Your task to perform on an android device: Go to Amazon Image 0: 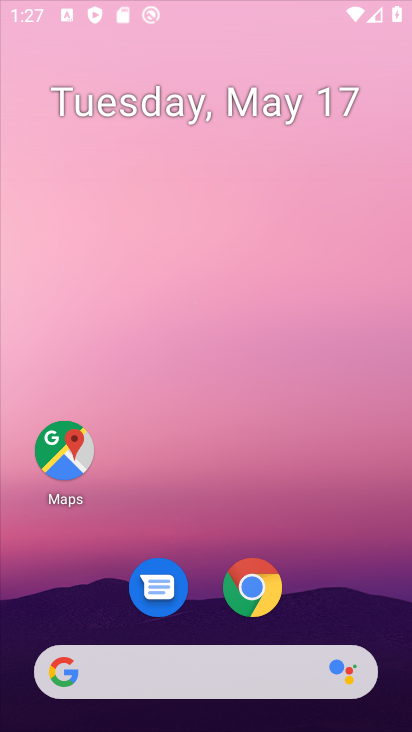
Step 0: click (220, 54)
Your task to perform on an android device: Go to Amazon Image 1: 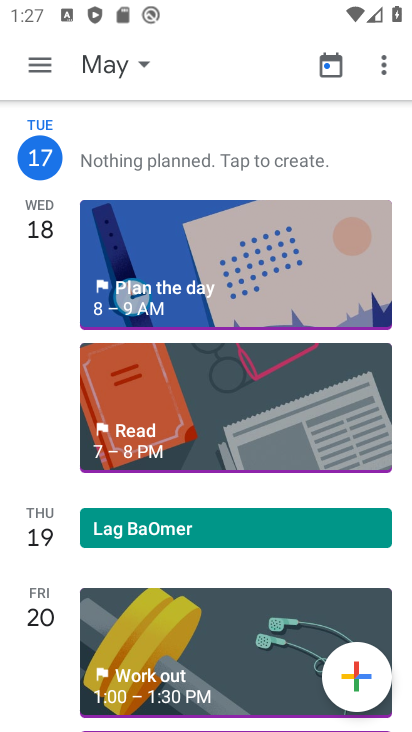
Step 1: drag from (233, 568) to (255, 28)
Your task to perform on an android device: Go to Amazon Image 2: 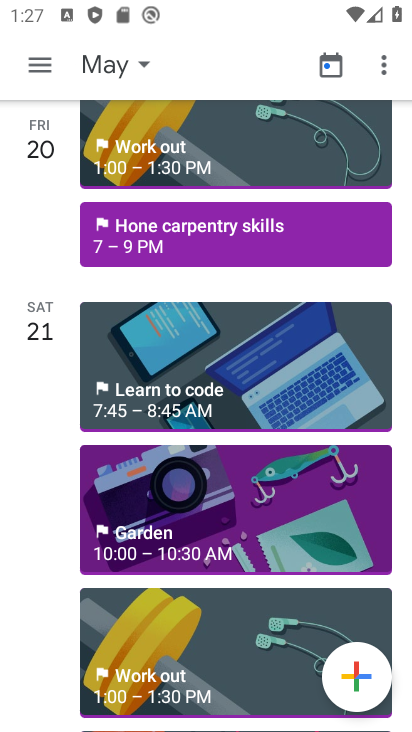
Step 2: press home button
Your task to perform on an android device: Go to Amazon Image 3: 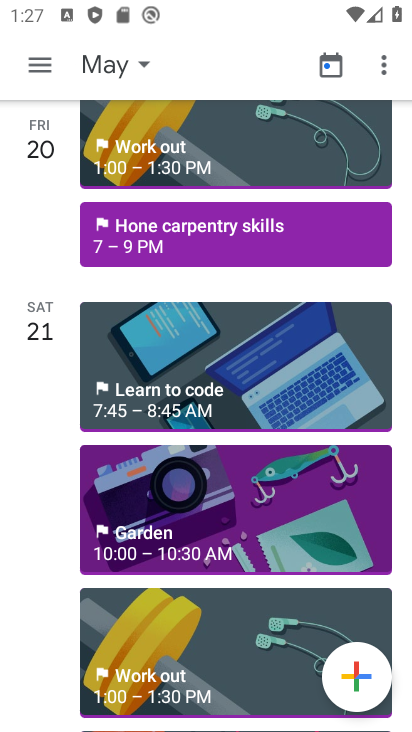
Step 3: click (408, 358)
Your task to perform on an android device: Go to Amazon Image 4: 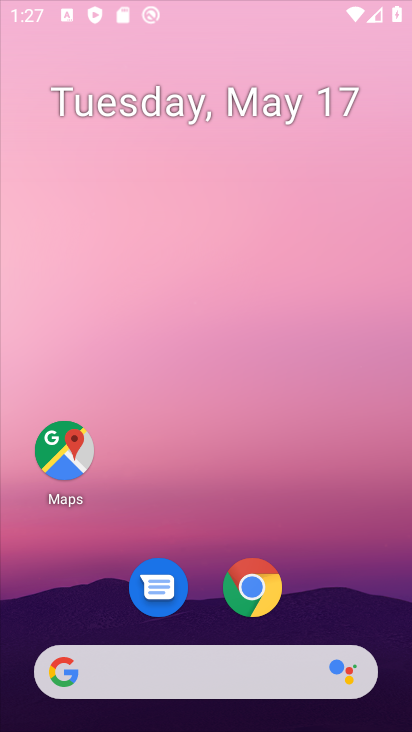
Step 4: drag from (232, 670) to (254, 150)
Your task to perform on an android device: Go to Amazon Image 5: 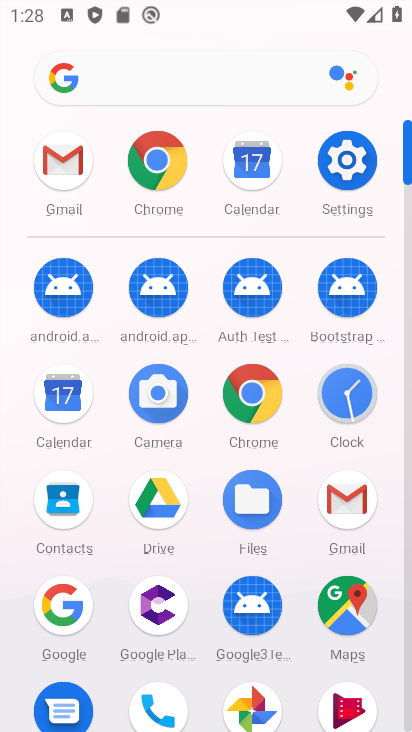
Step 5: click (167, 84)
Your task to perform on an android device: Go to Amazon Image 6: 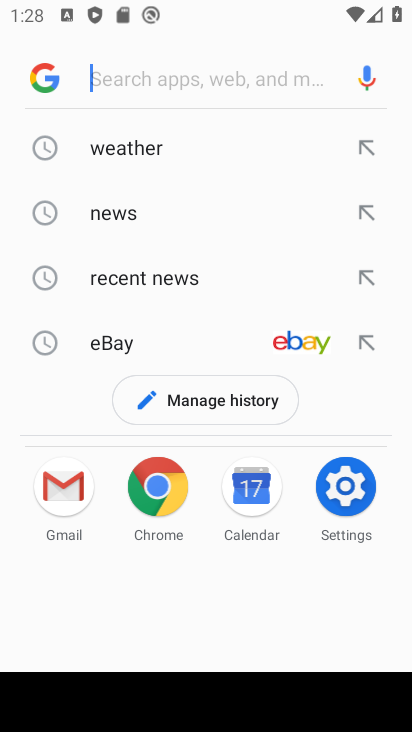
Step 6: type "amazon"
Your task to perform on an android device: Go to Amazon Image 7: 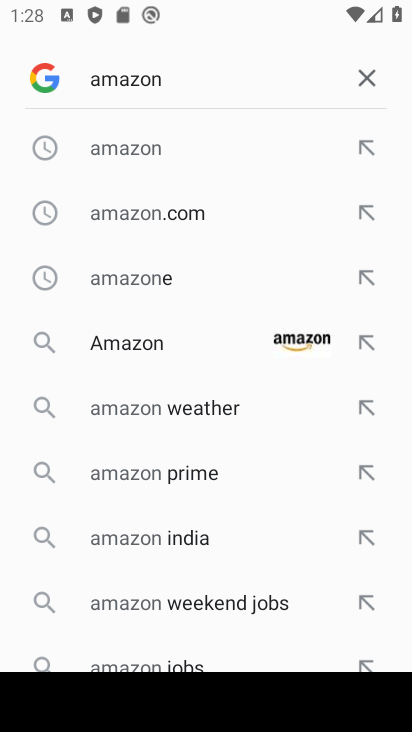
Step 7: click (171, 153)
Your task to perform on an android device: Go to Amazon Image 8: 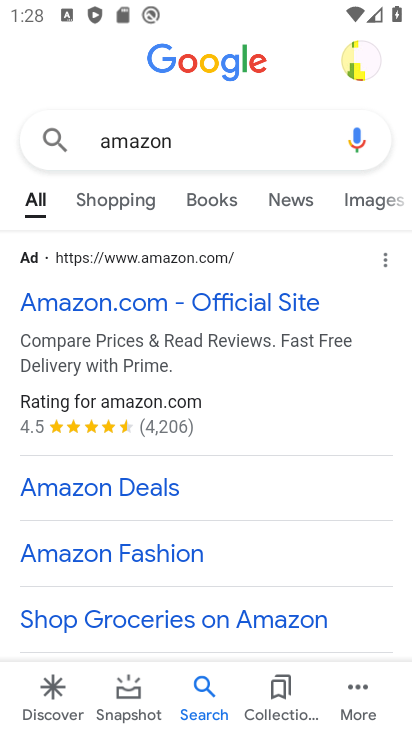
Step 8: click (217, 299)
Your task to perform on an android device: Go to Amazon Image 9: 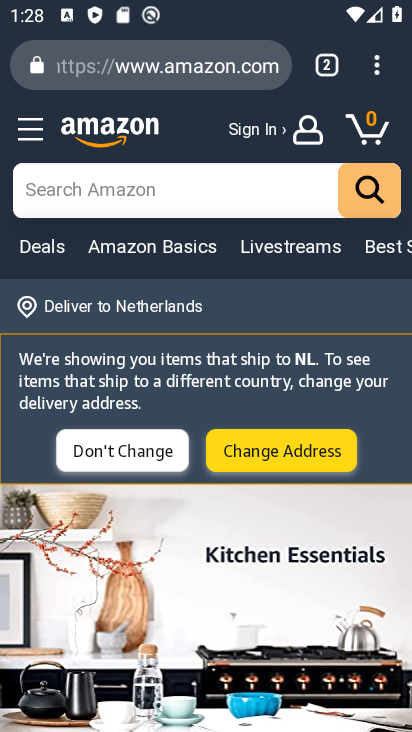
Step 9: task complete